Your task to perform on an android device: change your default location settings in chrome Image 0: 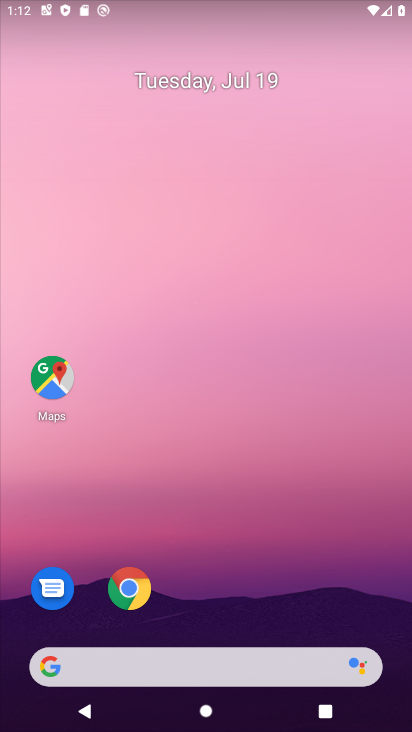
Step 0: press home button
Your task to perform on an android device: change your default location settings in chrome Image 1: 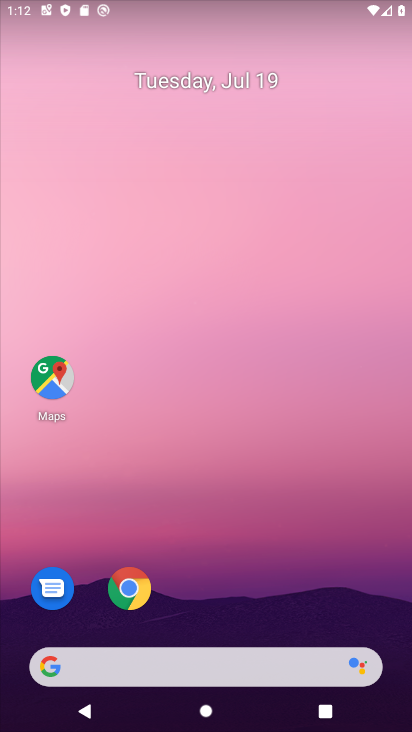
Step 1: click (159, 568)
Your task to perform on an android device: change your default location settings in chrome Image 2: 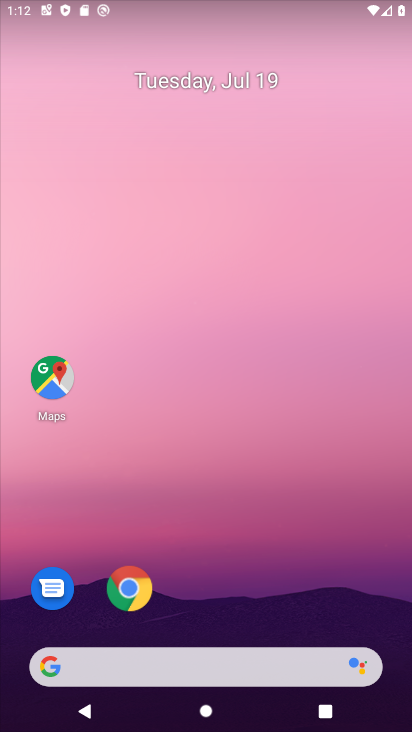
Step 2: click (126, 587)
Your task to perform on an android device: change your default location settings in chrome Image 3: 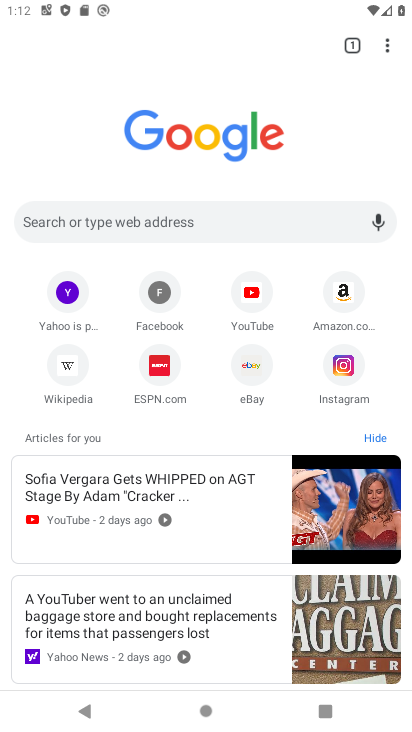
Step 3: click (389, 35)
Your task to perform on an android device: change your default location settings in chrome Image 4: 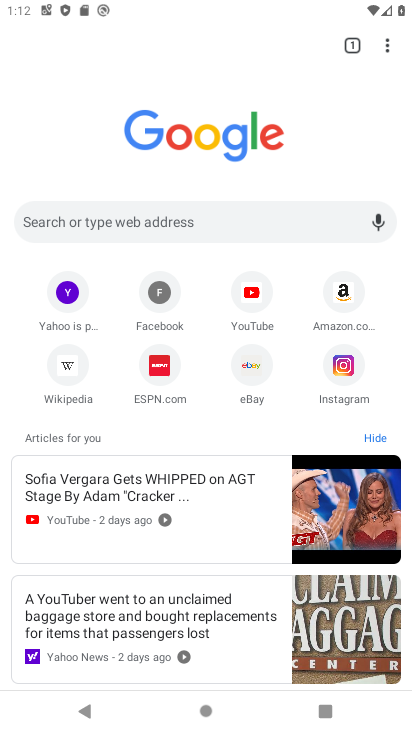
Step 4: click (384, 43)
Your task to perform on an android device: change your default location settings in chrome Image 5: 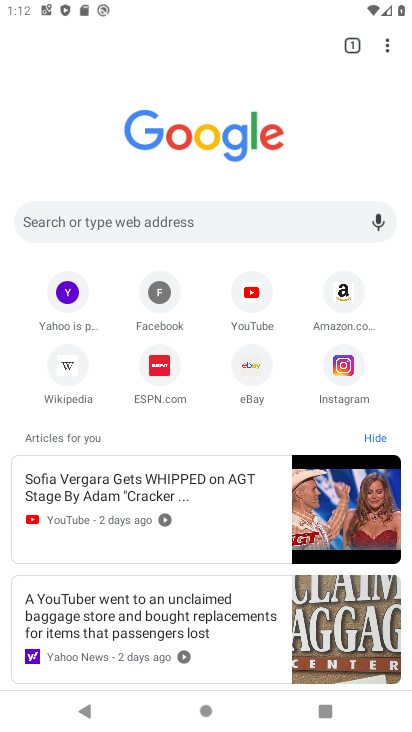
Step 5: click (387, 44)
Your task to perform on an android device: change your default location settings in chrome Image 6: 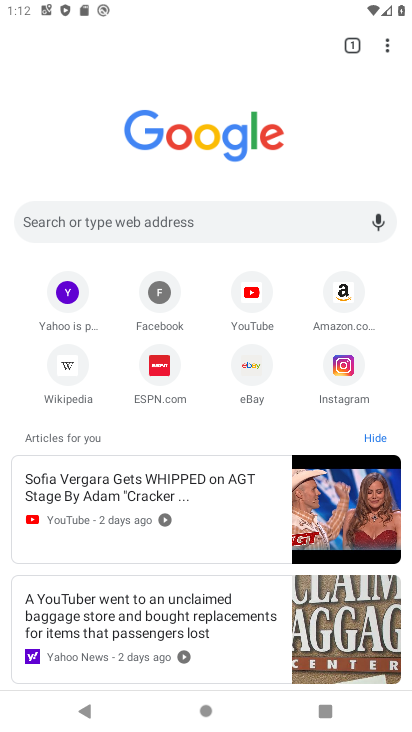
Step 6: click (387, 44)
Your task to perform on an android device: change your default location settings in chrome Image 7: 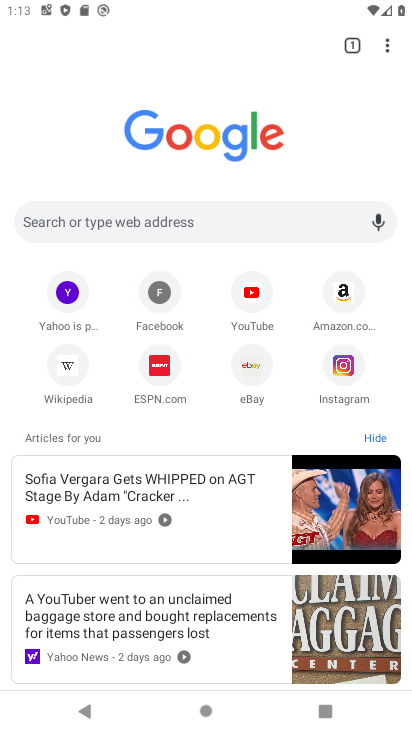
Step 7: click (383, 42)
Your task to perform on an android device: change your default location settings in chrome Image 8: 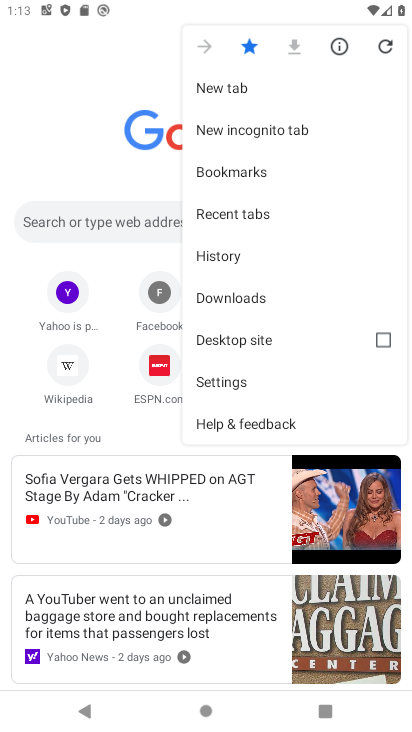
Step 8: click (206, 382)
Your task to perform on an android device: change your default location settings in chrome Image 9: 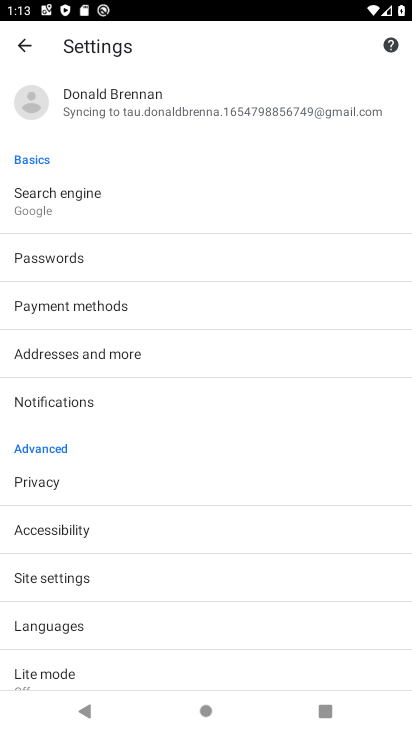
Step 9: drag from (187, 511) to (198, 237)
Your task to perform on an android device: change your default location settings in chrome Image 10: 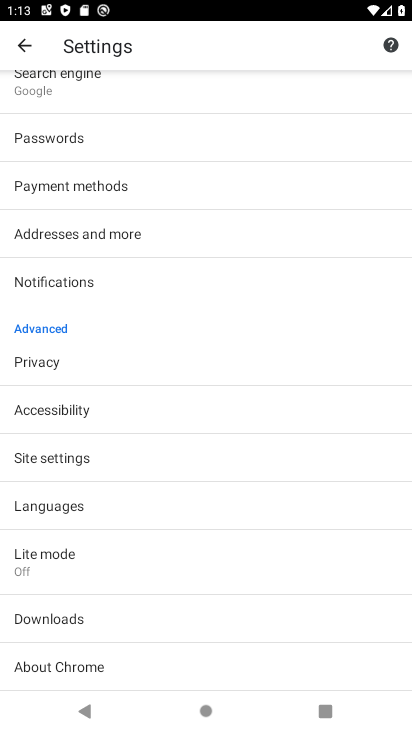
Step 10: drag from (214, 150) to (214, 640)
Your task to perform on an android device: change your default location settings in chrome Image 11: 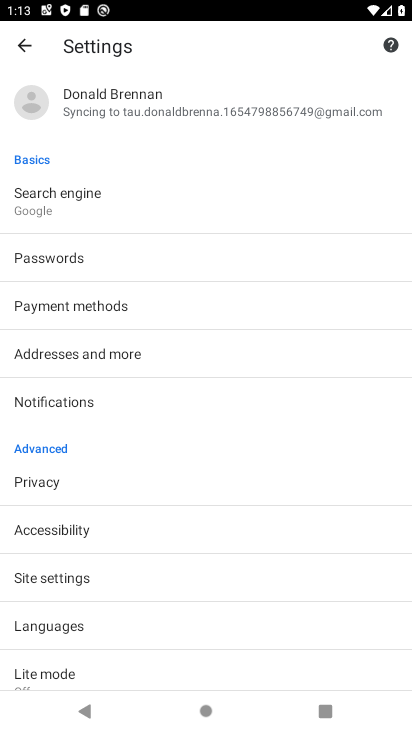
Step 11: drag from (205, 618) to (217, 215)
Your task to perform on an android device: change your default location settings in chrome Image 12: 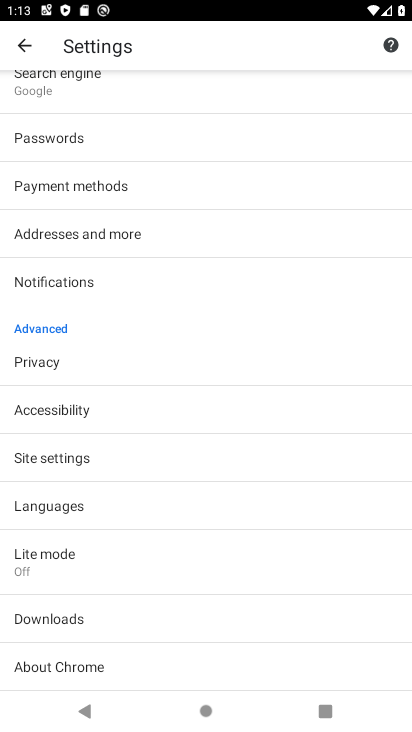
Step 12: drag from (221, 163) to (221, 597)
Your task to perform on an android device: change your default location settings in chrome Image 13: 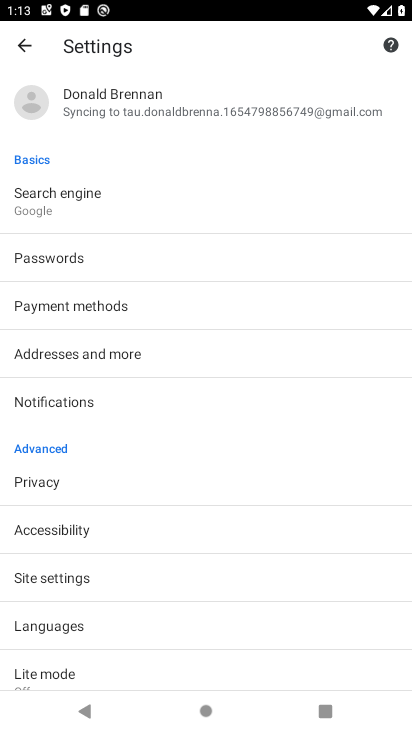
Step 13: click (55, 582)
Your task to perform on an android device: change your default location settings in chrome Image 14: 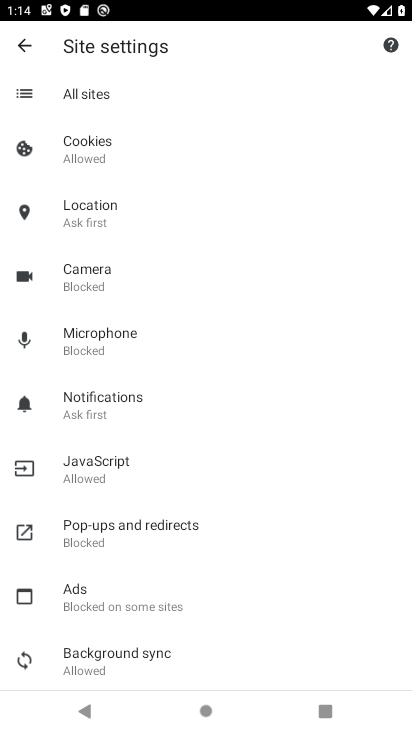
Step 14: click (104, 196)
Your task to perform on an android device: change your default location settings in chrome Image 15: 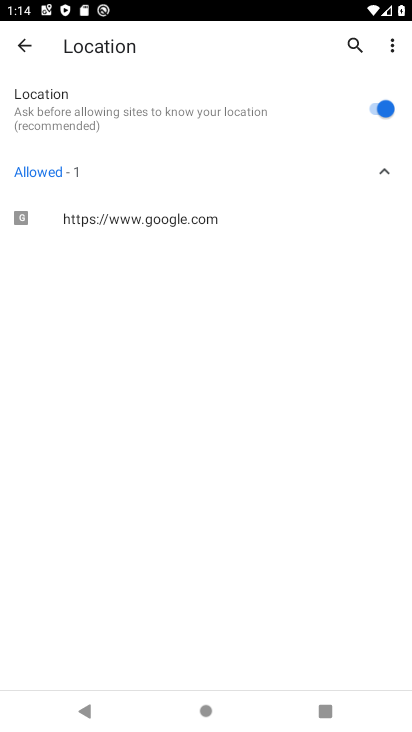
Step 15: click (394, 114)
Your task to perform on an android device: change your default location settings in chrome Image 16: 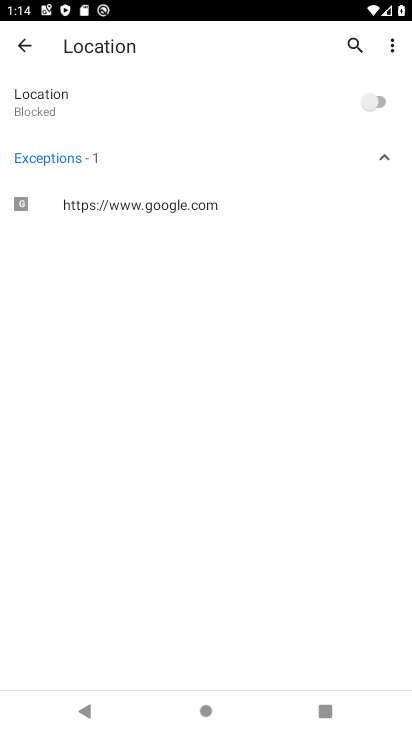
Step 16: task complete